Your task to perform on an android device: What's a good restaurant in Philadelphia? Image 0: 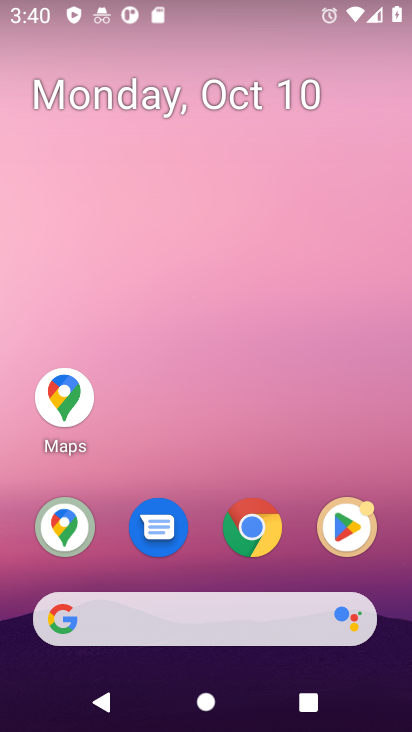
Step 0: click (60, 393)
Your task to perform on an android device: What's a good restaurant in Philadelphia? Image 1: 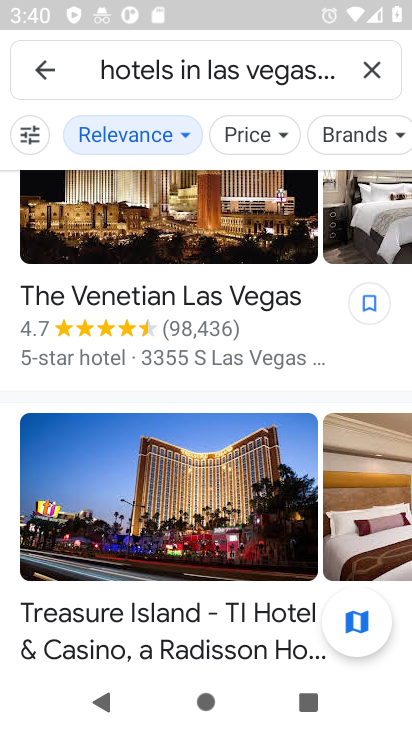
Step 1: click (373, 73)
Your task to perform on an android device: What's a good restaurant in Philadelphia? Image 2: 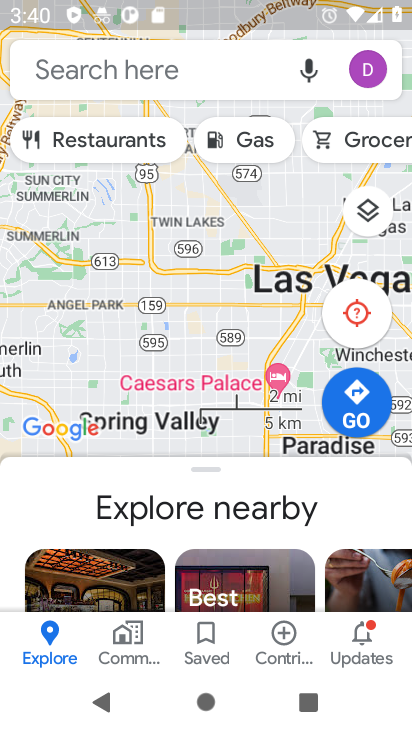
Step 2: click (195, 76)
Your task to perform on an android device: What's a good restaurant in Philadelphia? Image 3: 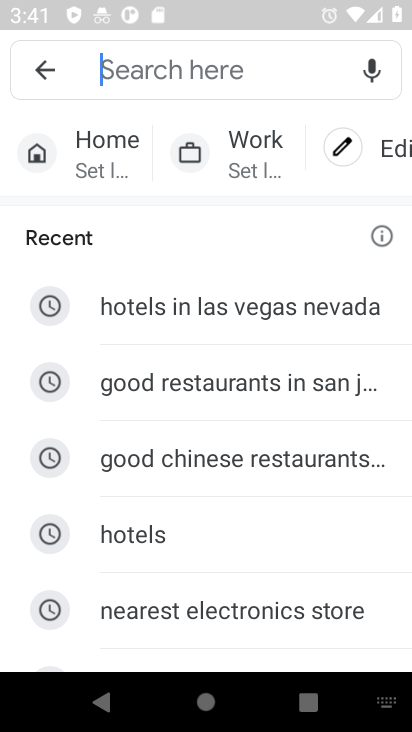
Step 3: type "good restaurants in Philadelphia"
Your task to perform on an android device: What's a good restaurant in Philadelphia? Image 4: 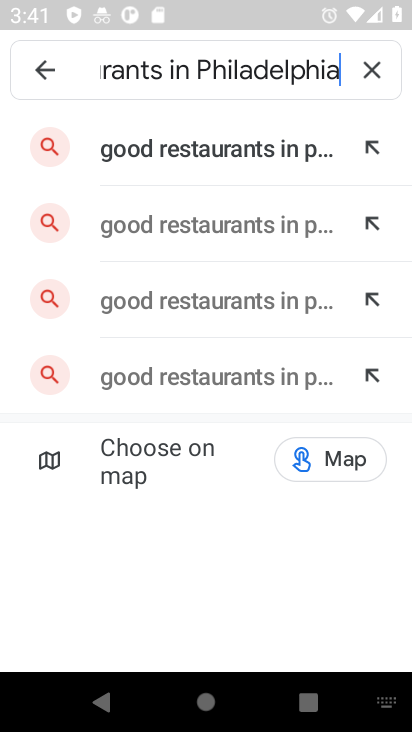
Step 4: click (254, 144)
Your task to perform on an android device: What's a good restaurant in Philadelphia? Image 5: 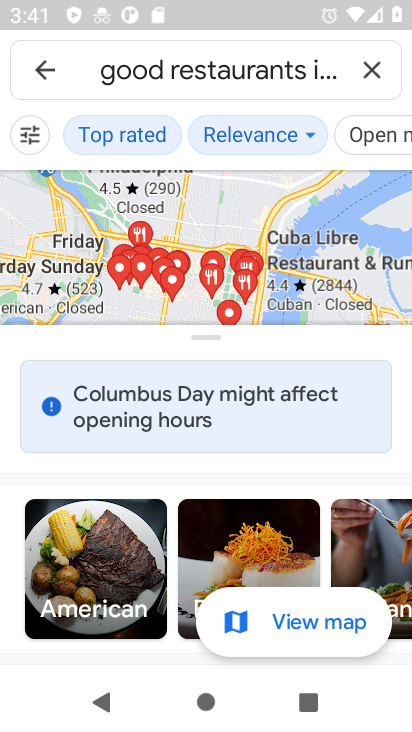
Step 5: task complete